Your task to perform on an android device: Search for "razer kraken" on ebay, select the first entry, and add it to the cart. Image 0: 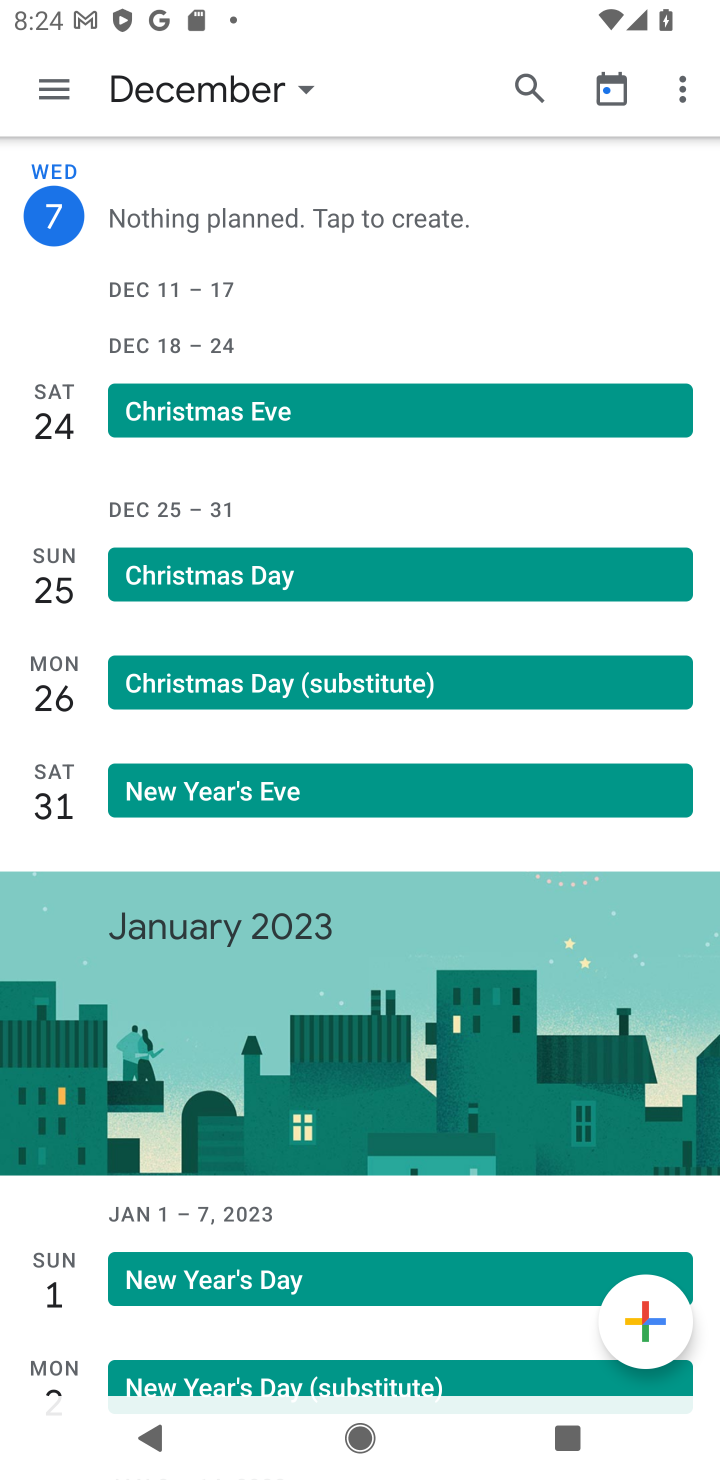
Step 0: press home button
Your task to perform on an android device: Search for "razer kraken" on ebay, select the first entry, and add it to the cart. Image 1: 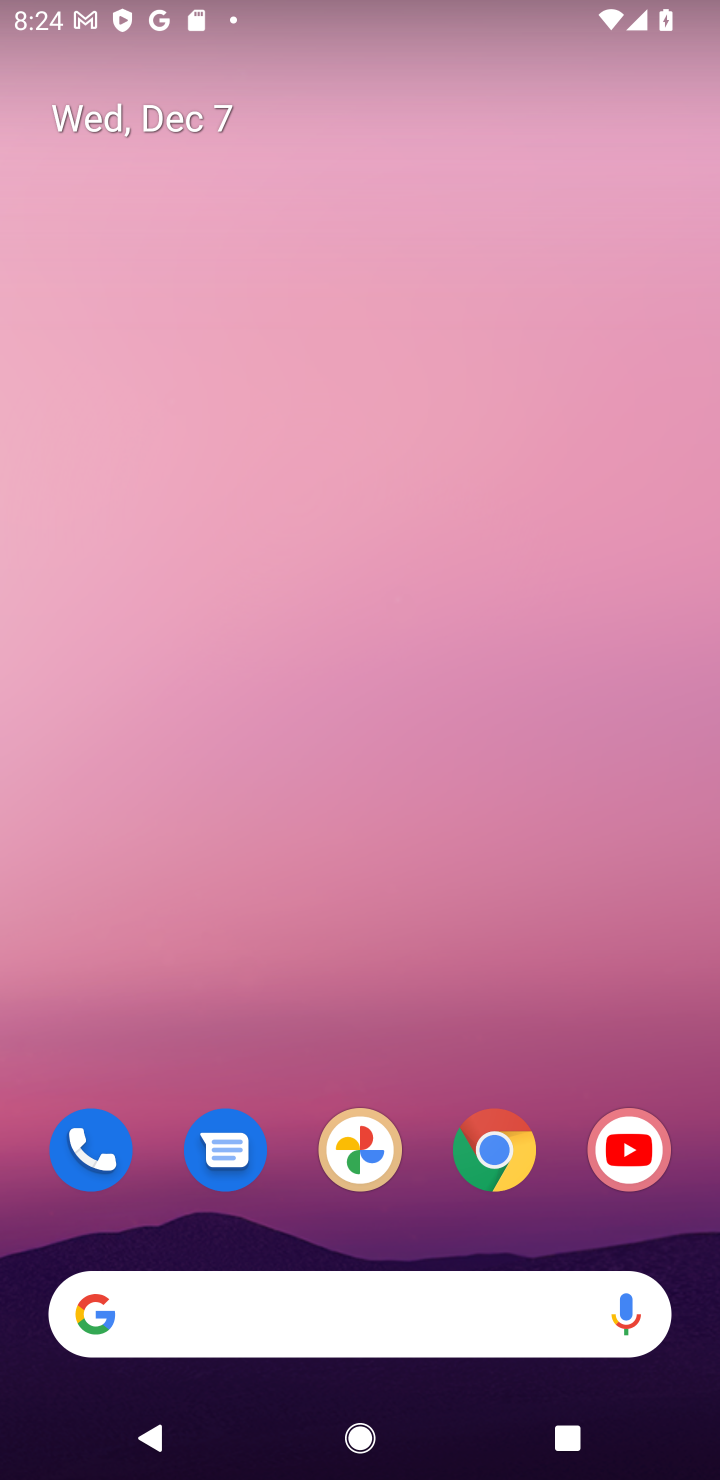
Step 1: click (507, 1174)
Your task to perform on an android device: Search for "razer kraken" on ebay, select the first entry, and add it to the cart. Image 2: 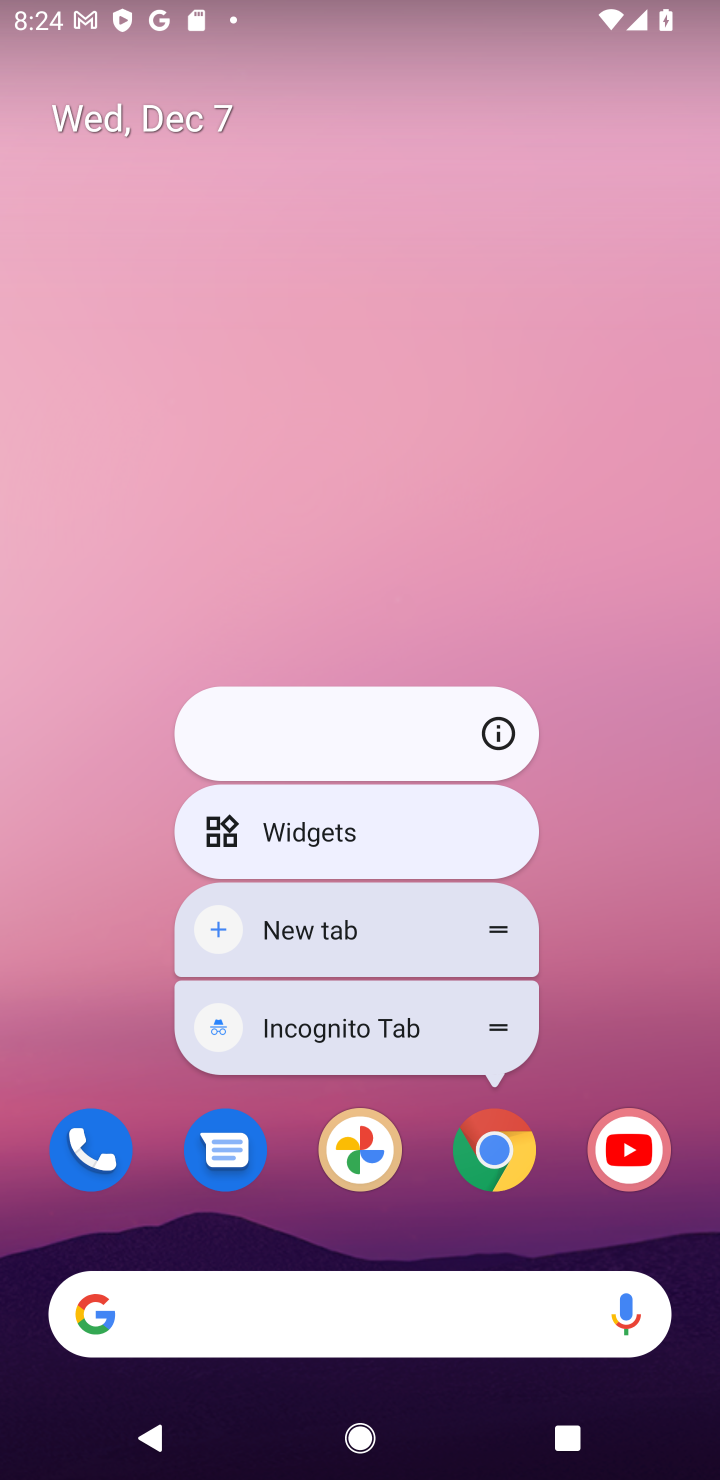
Step 2: click (507, 1174)
Your task to perform on an android device: Search for "razer kraken" on ebay, select the first entry, and add it to the cart. Image 3: 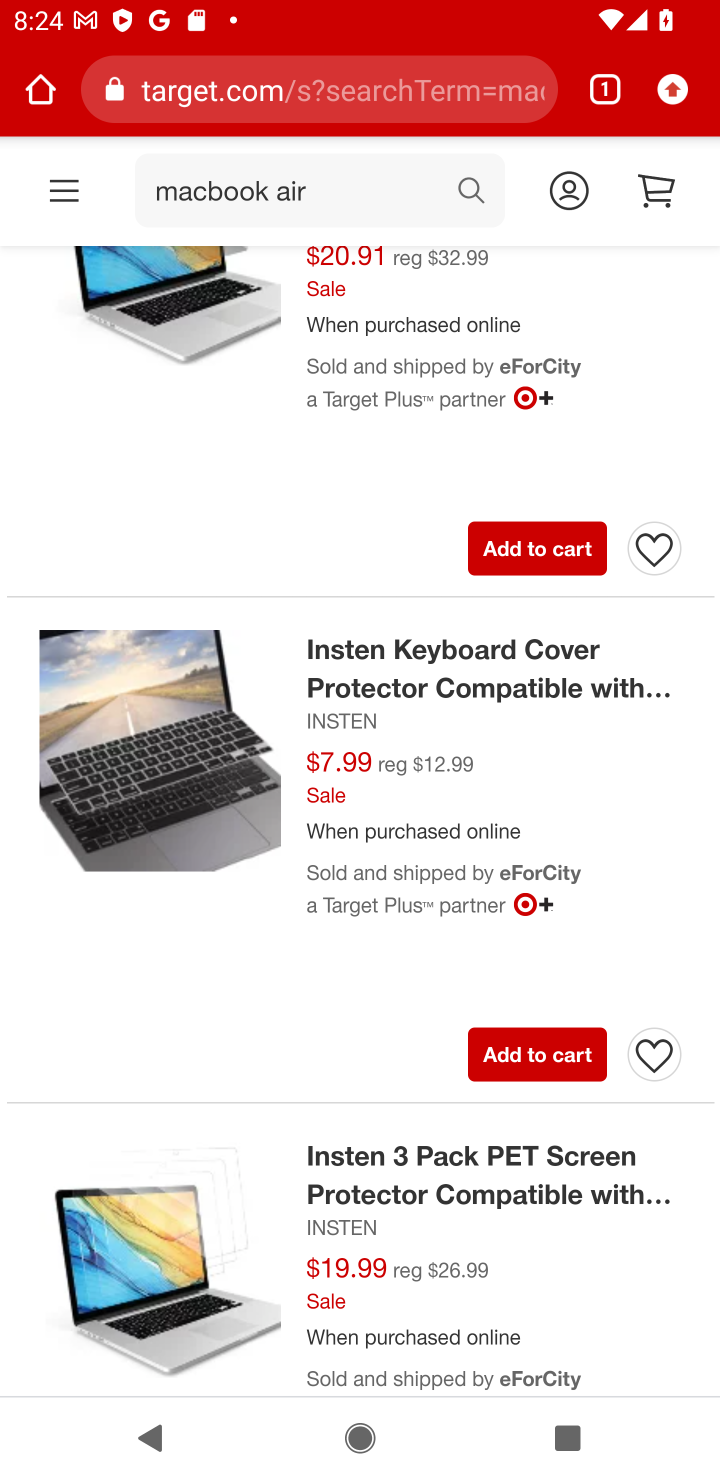
Step 3: click (283, 90)
Your task to perform on an android device: Search for "razer kraken" on ebay, select the first entry, and add it to the cart. Image 4: 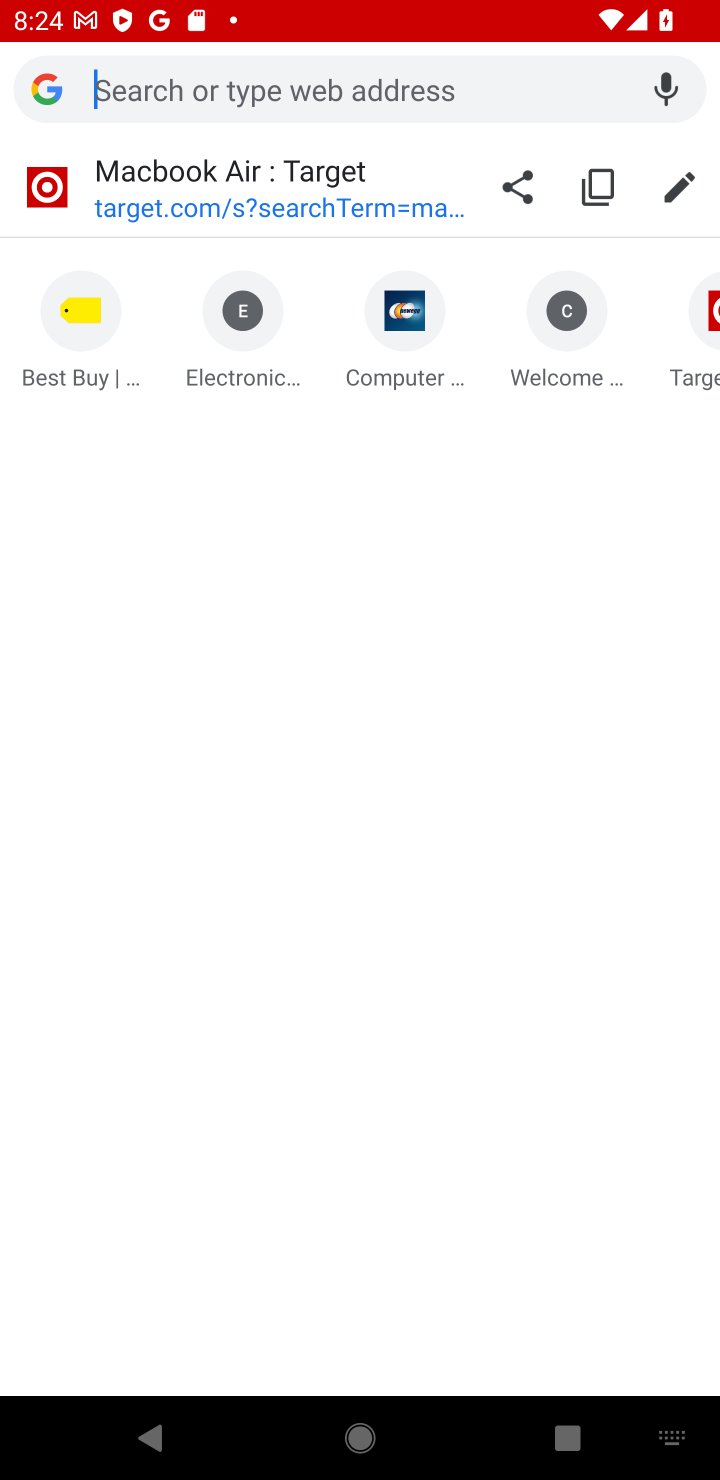
Step 4: type "ebay"
Your task to perform on an android device: Search for "razer kraken" on ebay, select the first entry, and add it to the cart. Image 5: 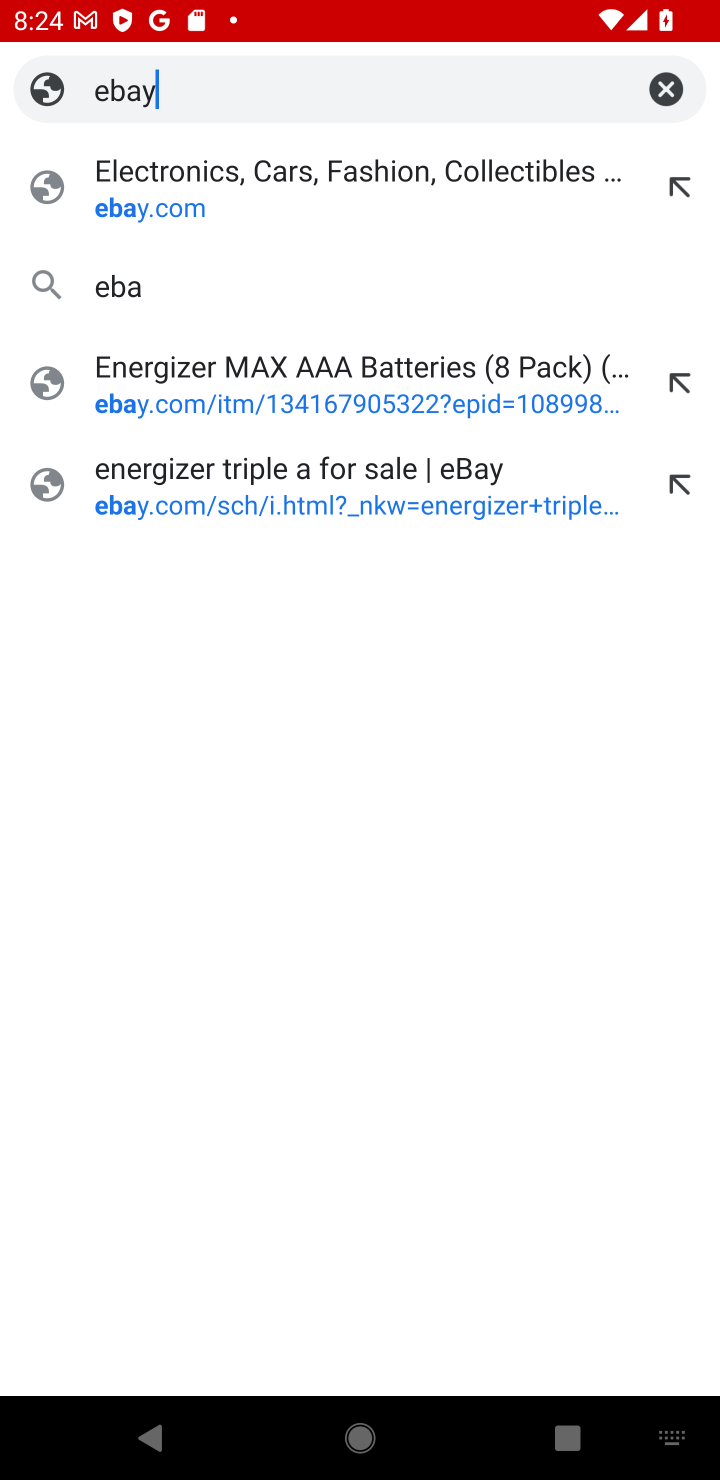
Step 5: press enter
Your task to perform on an android device: Search for "razer kraken" on ebay, select the first entry, and add it to the cart. Image 6: 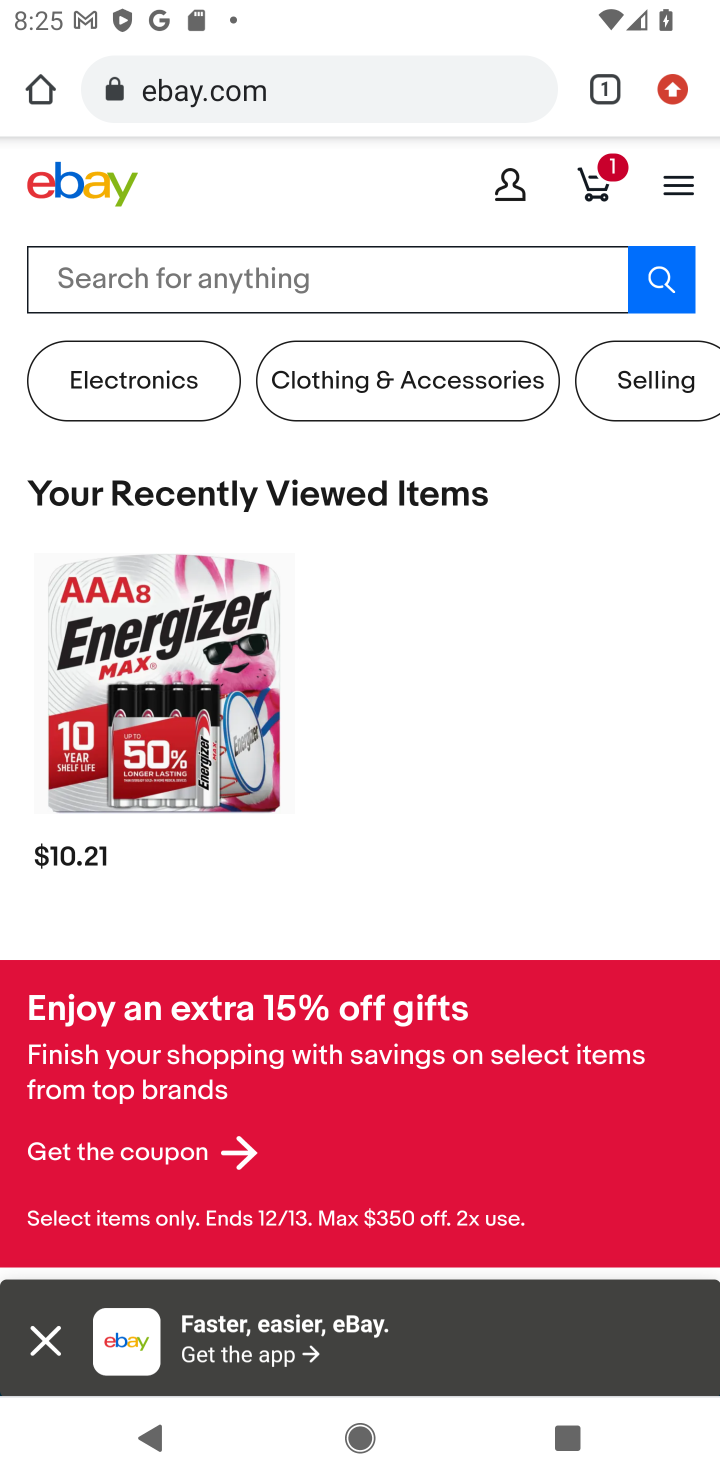
Step 6: click (405, 278)
Your task to perform on an android device: Search for "razer kraken" on ebay, select the first entry, and add it to the cart. Image 7: 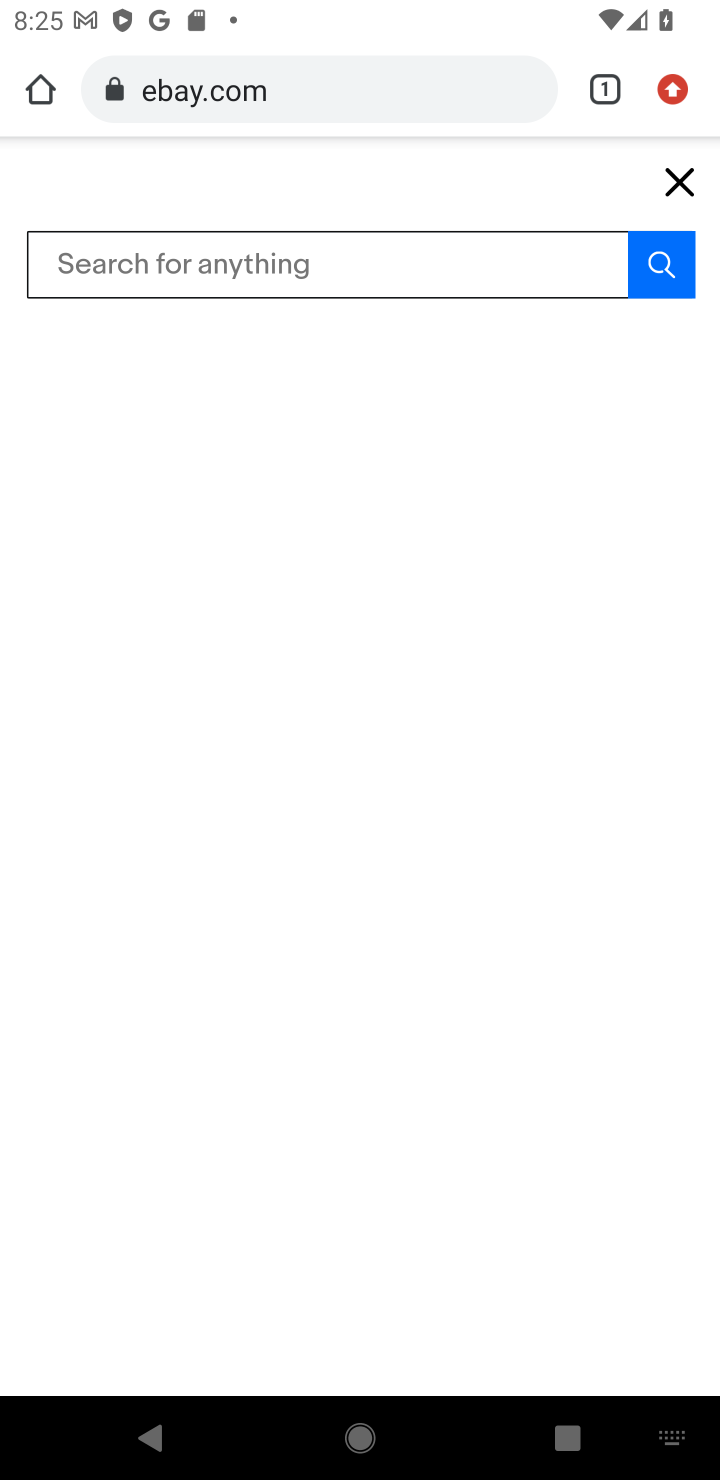
Step 7: press enter
Your task to perform on an android device: Search for "razer kraken" on ebay, select the first entry, and add it to the cart. Image 8: 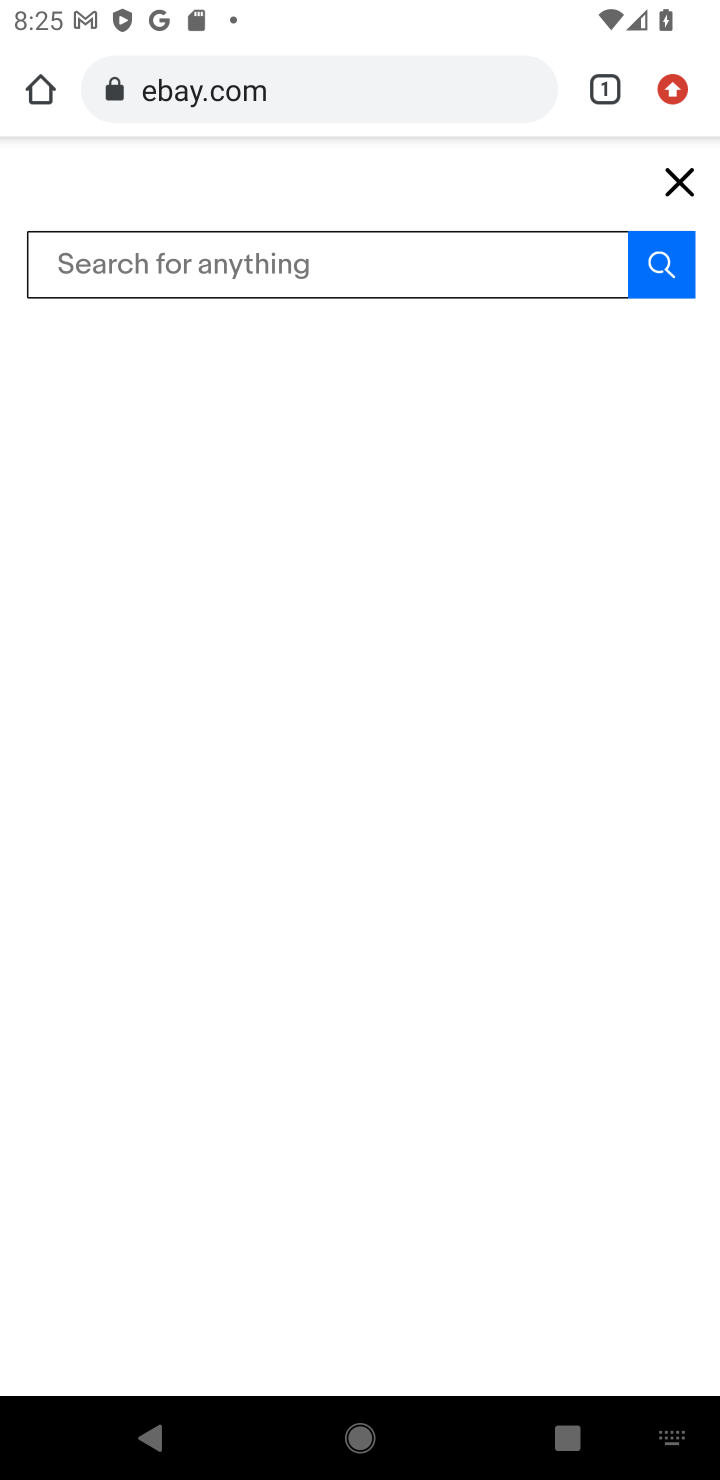
Step 8: type "razer kraken"
Your task to perform on an android device: Search for "razer kraken" on ebay, select the first entry, and add it to the cart. Image 9: 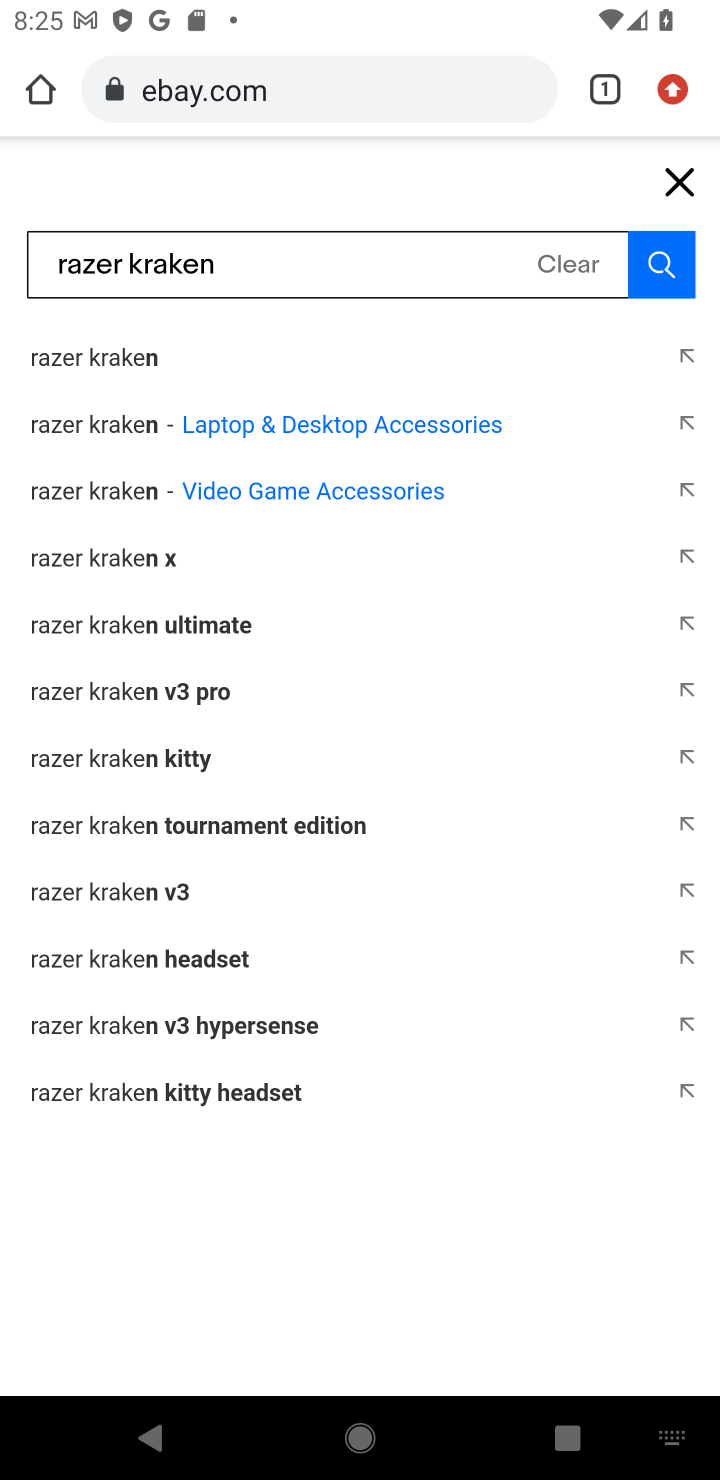
Step 9: click (123, 348)
Your task to perform on an android device: Search for "razer kraken" on ebay, select the first entry, and add it to the cart. Image 10: 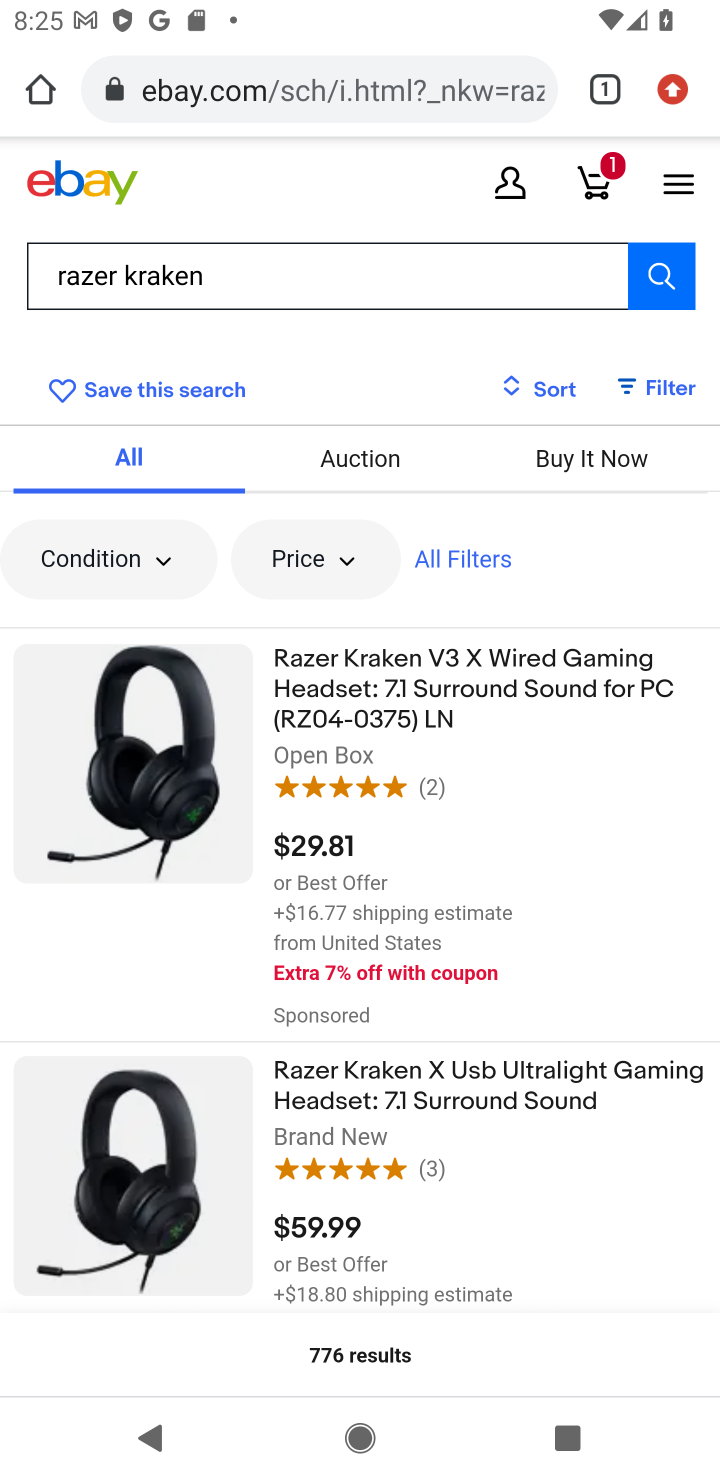
Step 10: click (156, 737)
Your task to perform on an android device: Search for "razer kraken" on ebay, select the first entry, and add it to the cart. Image 11: 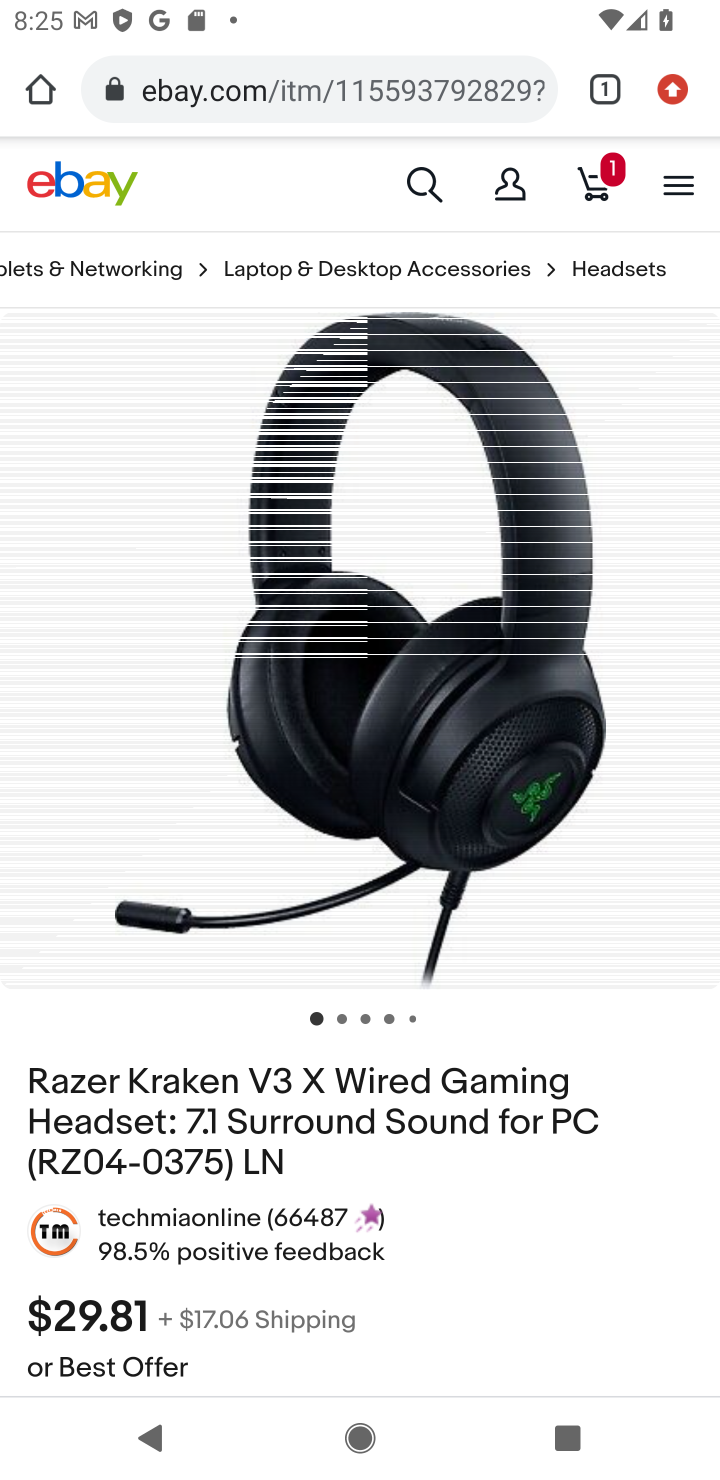
Step 11: drag from (490, 1233) to (708, 703)
Your task to perform on an android device: Search for "razer kraken" on ebay, select the first entry, and add it to the cart. Image 12: 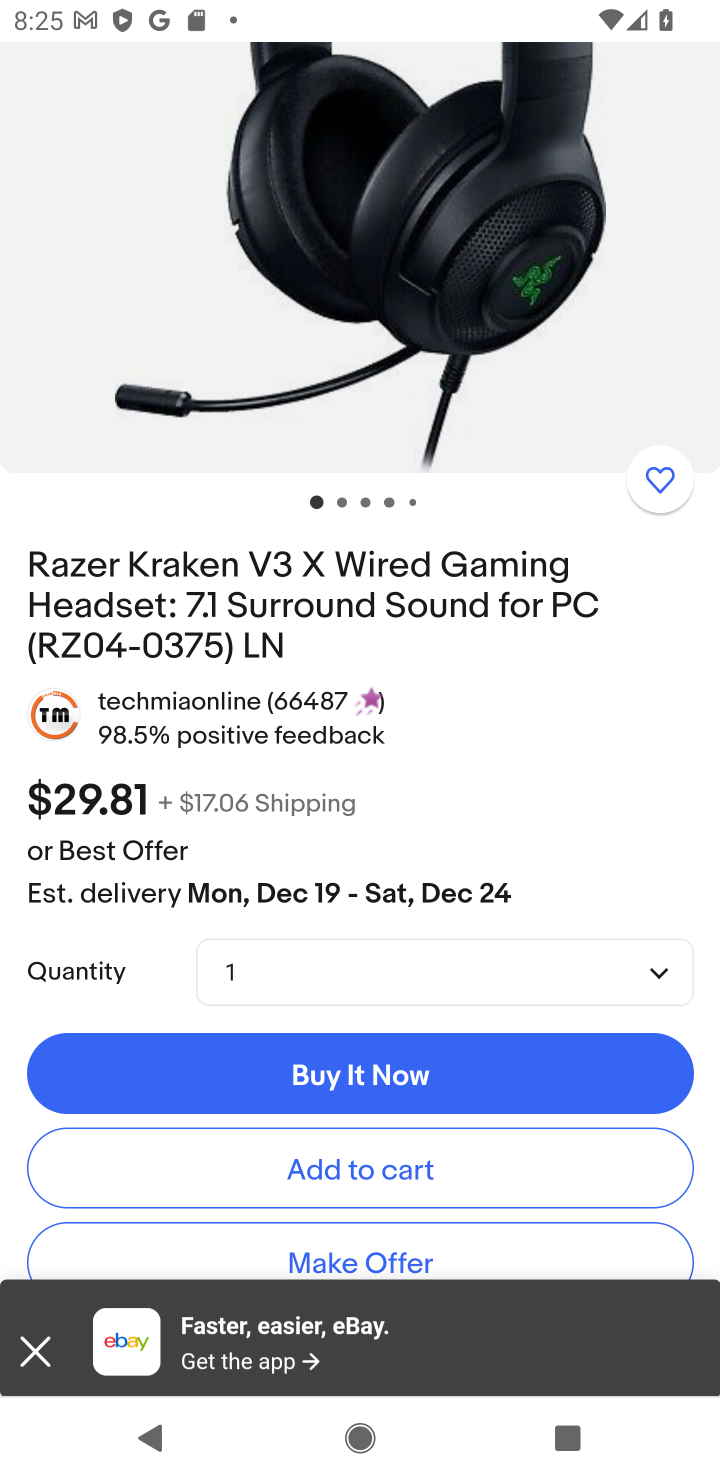
Step 12: click (346, 1157)
Your task to perform on an android device: Search for "razer kraken" on ebay, select the first entry, and add it to the cart. Image 13: 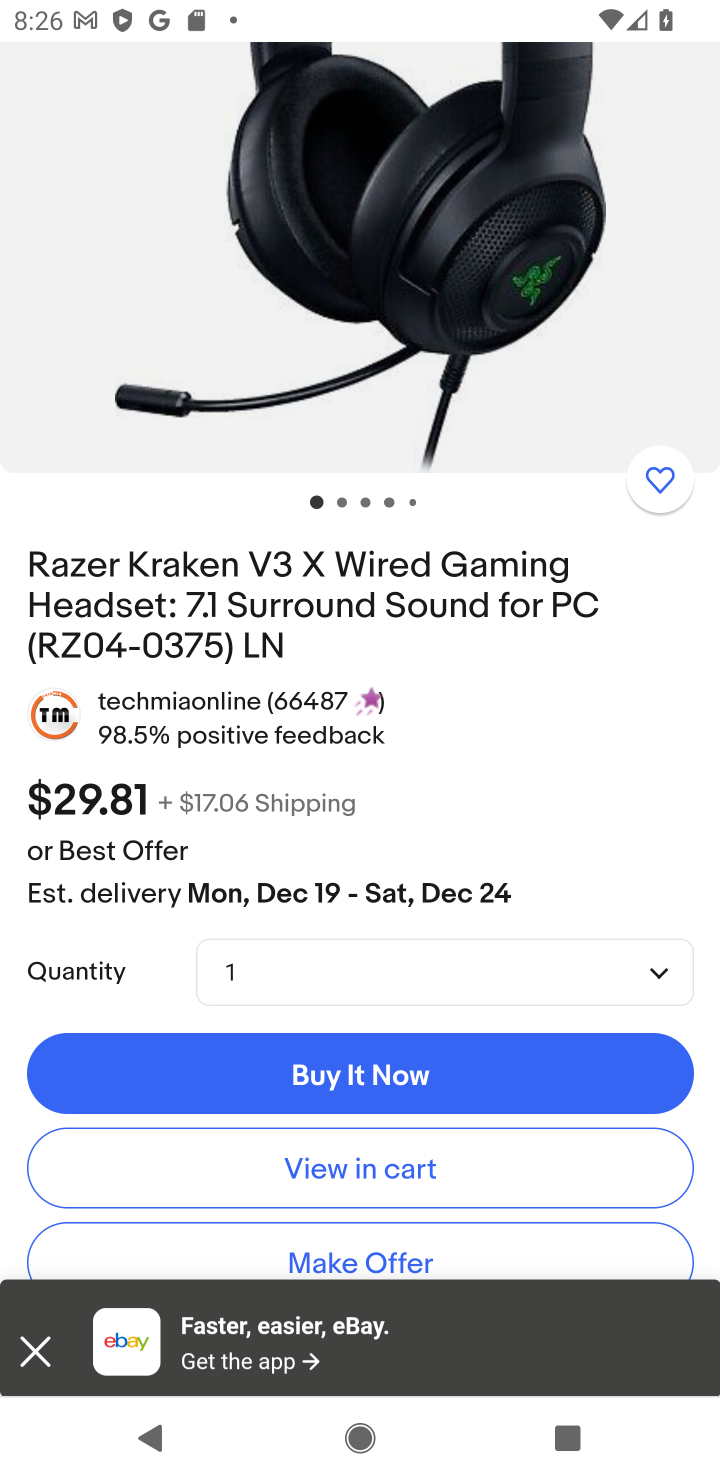
Step 13: click (346, 1157)
Your task to perform on an android device: Search for "razer kraken" on ebay, select the first entry, and add it to the cart. Image 14: 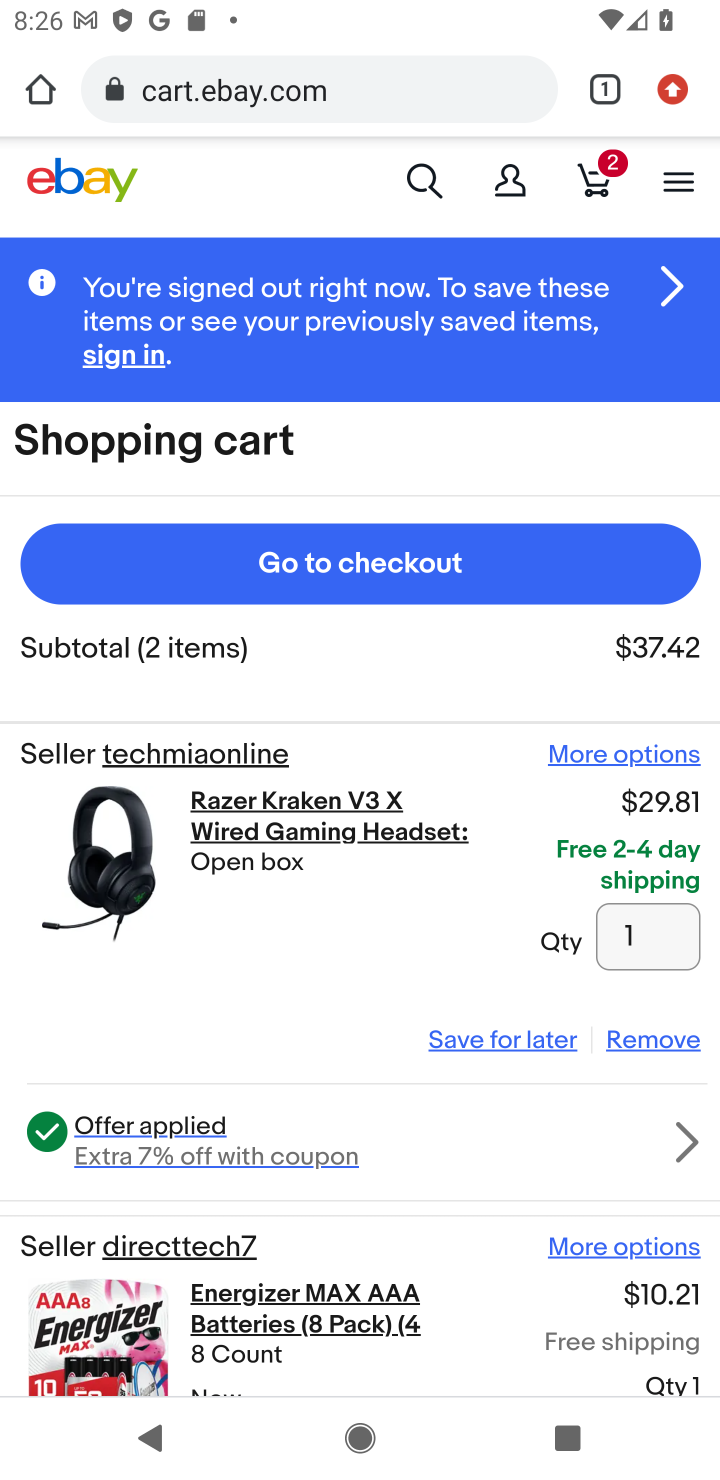
Step 14: task complete